Your task to perform on an android device: Open calendar and show me the second week of next month Image 0: 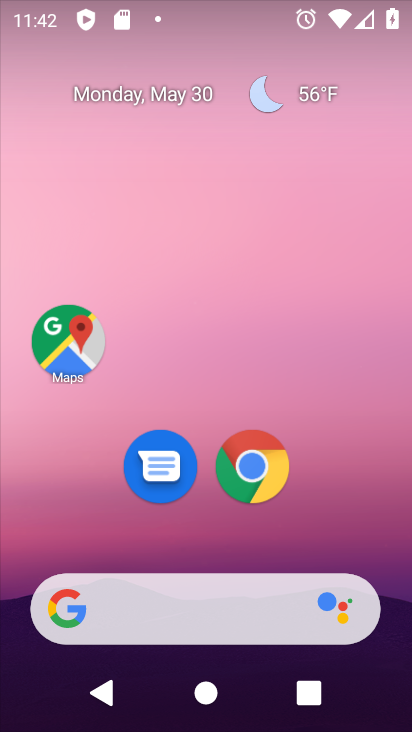
Step 0: click (374, 353)
Your task to perform on an android device: Open calendar and show me the second week of next month Image 1: 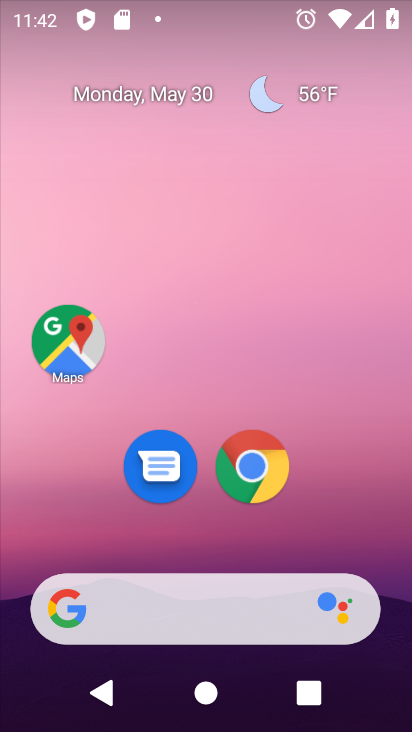
Step 1: drag from (187, 630) to (167, 172)
Your task to perform on an android device: Open calendar and show me the second week of next month Image 2: 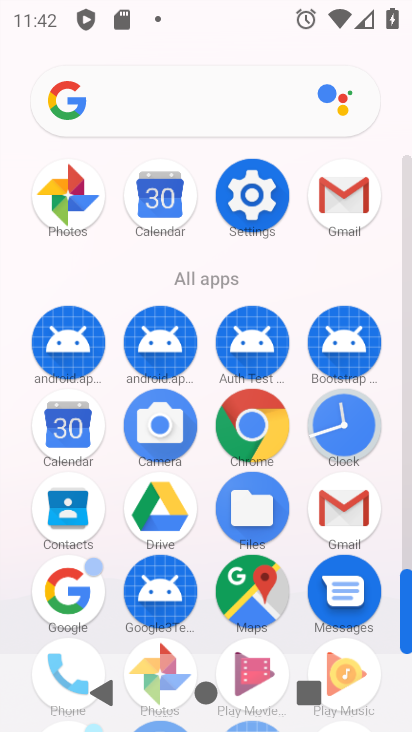
Step 2: click (59, 432)
Your task to perform on an android device: Open calendar and show me the second week of next month Image 3: 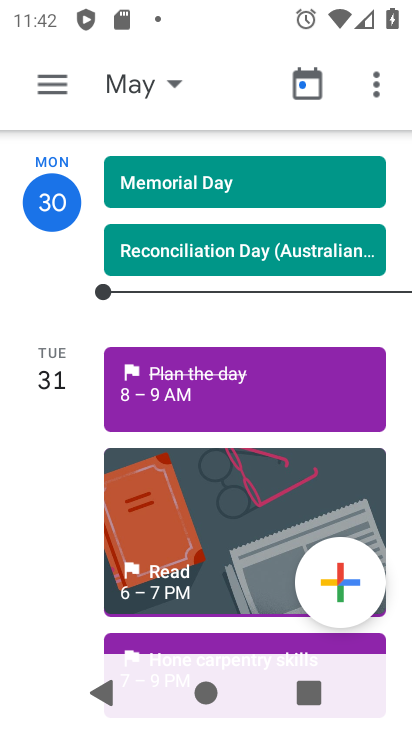
Step 3: click (56, 87)
Your task to perform on an android device: Open calendar and show me the second week of next month Image 4: 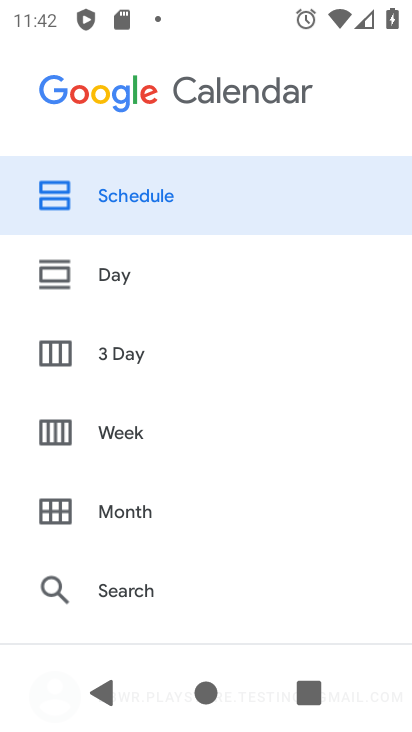
Step 4: click (133, 501)
Your task to perform on an android device: Open calendar and show me the second week of next month Image 5: 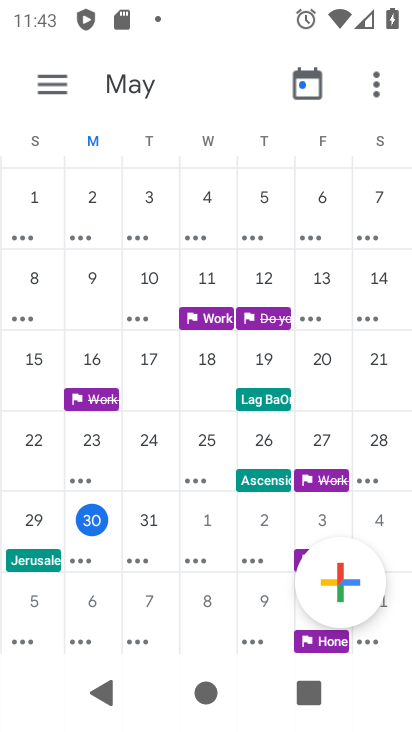
Step 5: task complete